Your task to perform on an android device: Open Reddit.com Image 0: 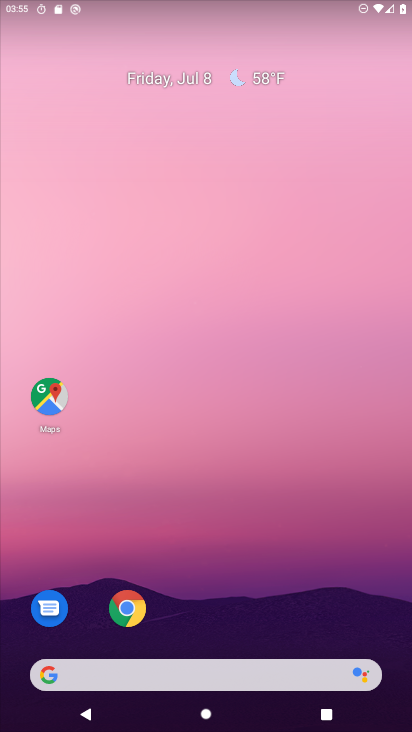
Step 0: click (126, 608)
Your task to perform on an android device: Open Reddit.com Image 1: 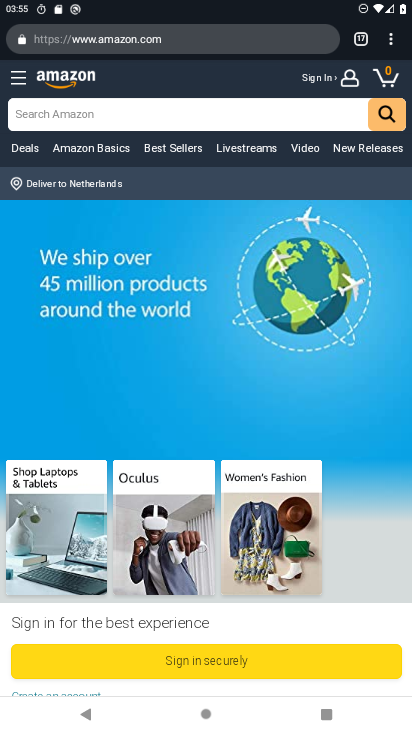
Step 1: click (392, 45)
Your task to perform on an android device: Open Reddit.com Image 2: 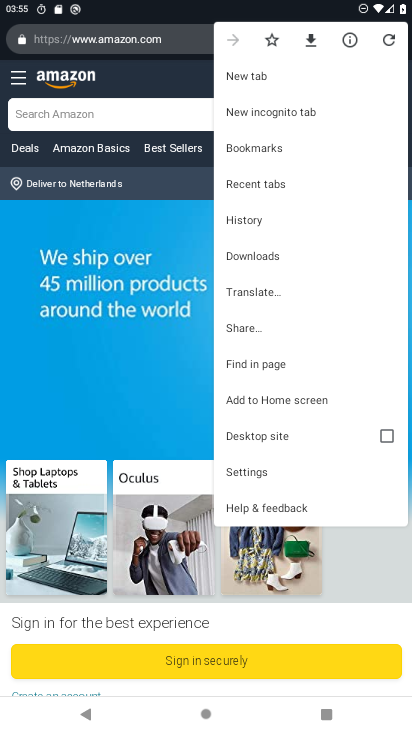
Step 2: click (248, 77)
Your task to perform on an android device: Open Reddit.com Image 3: 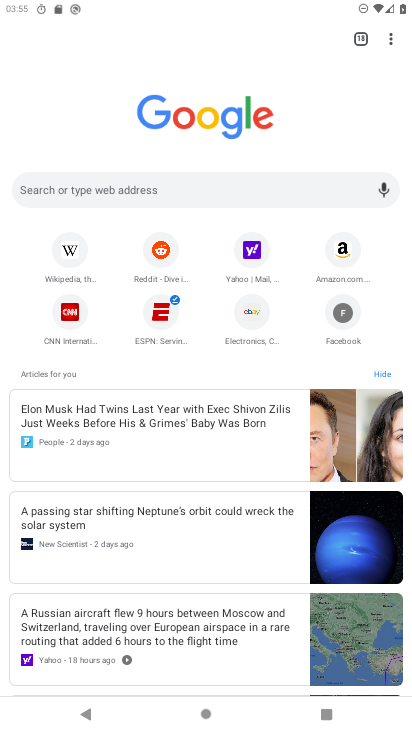
Step 3: click (158, 257)
Your task to perform on an android device: Open Reddit.com Image 4: 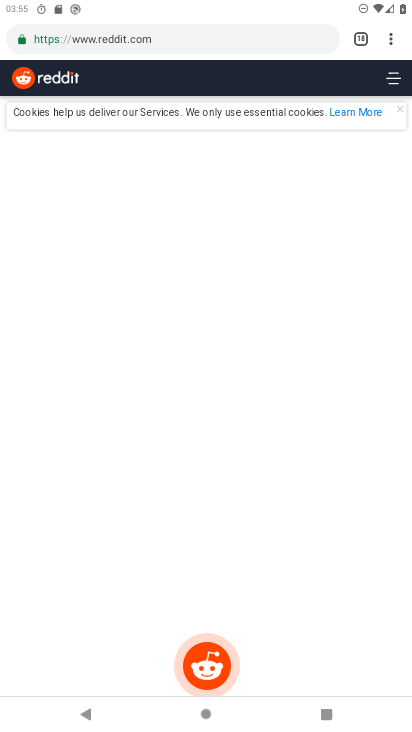
Step 4: task complete